Your task to perform on an android device: choose inbox layout in the gmail app Image 0: 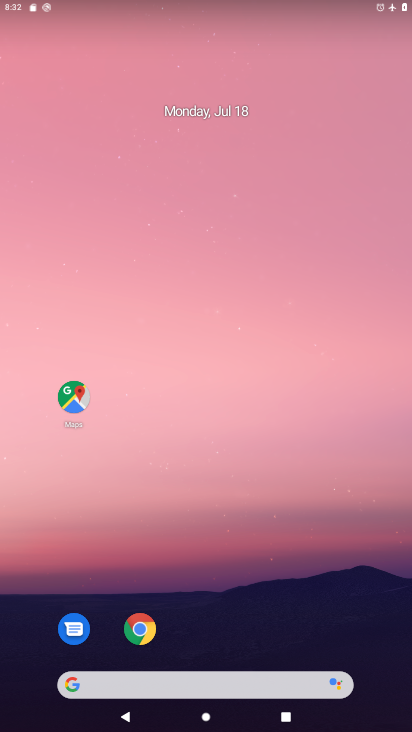
Step 0: drag from (202, 633) to (207, 412)
Your task to perform on an android device: choose inbox layout in the gmail app Image 1: 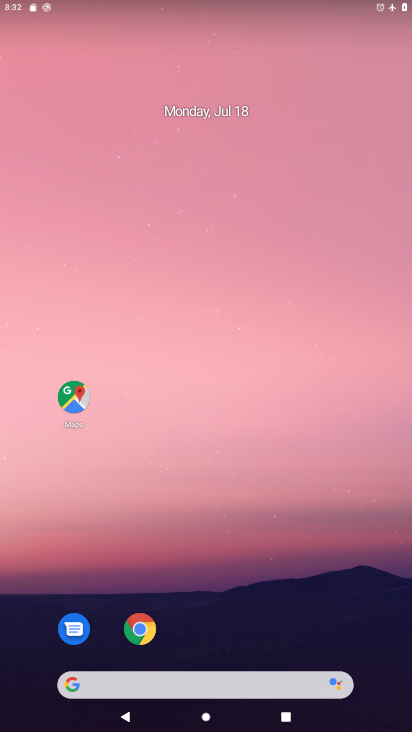
Step 1: drag from (204, 619) to (261, 122)
Your task to perform on an android device: choose inbox layout in the gmail app Image 2: 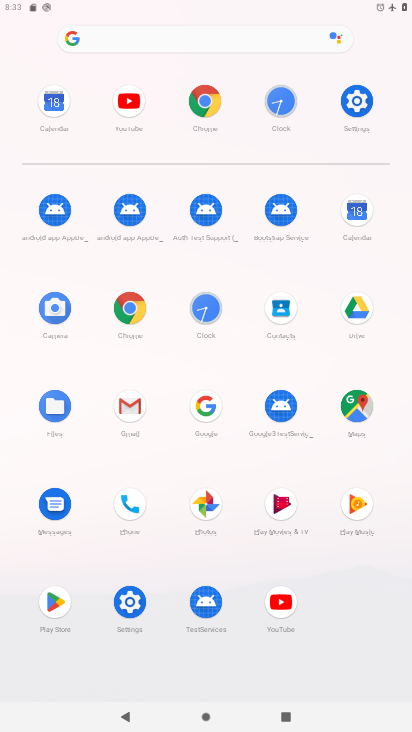
Step 2: click (129, 414)
Your task to perform on an android device: choose inbox layout in the gmail app Image 3: 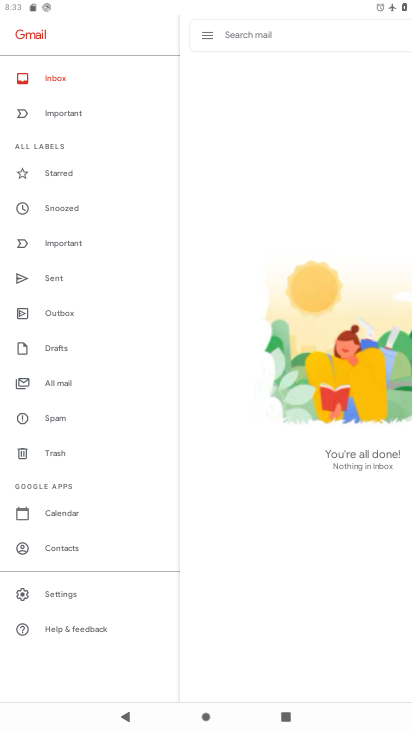
Step 3: click (66, 588)
Your task to perform on an android device: choose inbox layout in the gmail app Image 4: 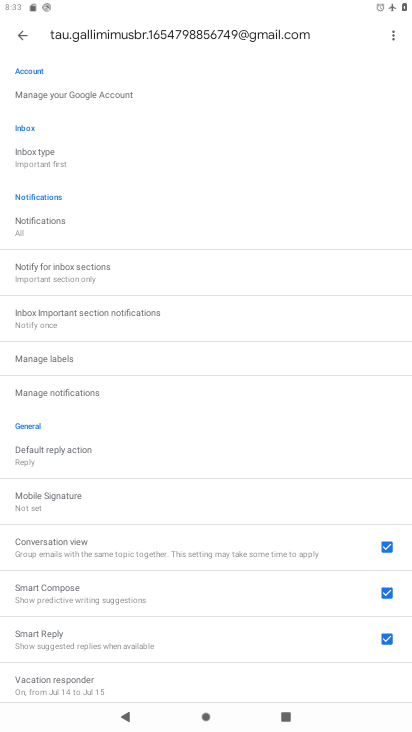
Step 4: click (43, 162)
Your task to perform on an android device: choose inbox layout in the gmail app Image 5: 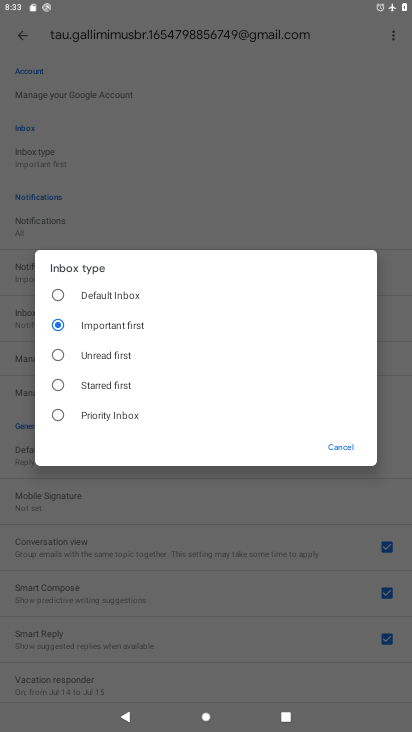
Step 5: click (94, 293)
Your task to perform on an android device: choose inbox layout in the gmail app Image 6: 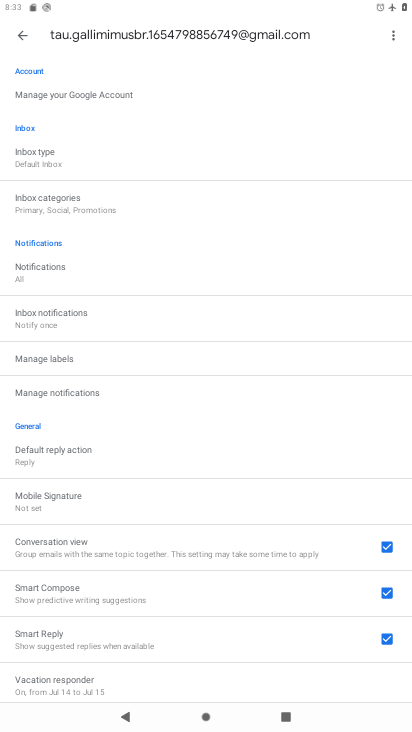
Step 6: task complete